Your task to perform on an android device: Show the shopping cart on newegg.com. Search for "logitech g933" on newegg.com, select the first entry, and add it to the cart. Image 0: 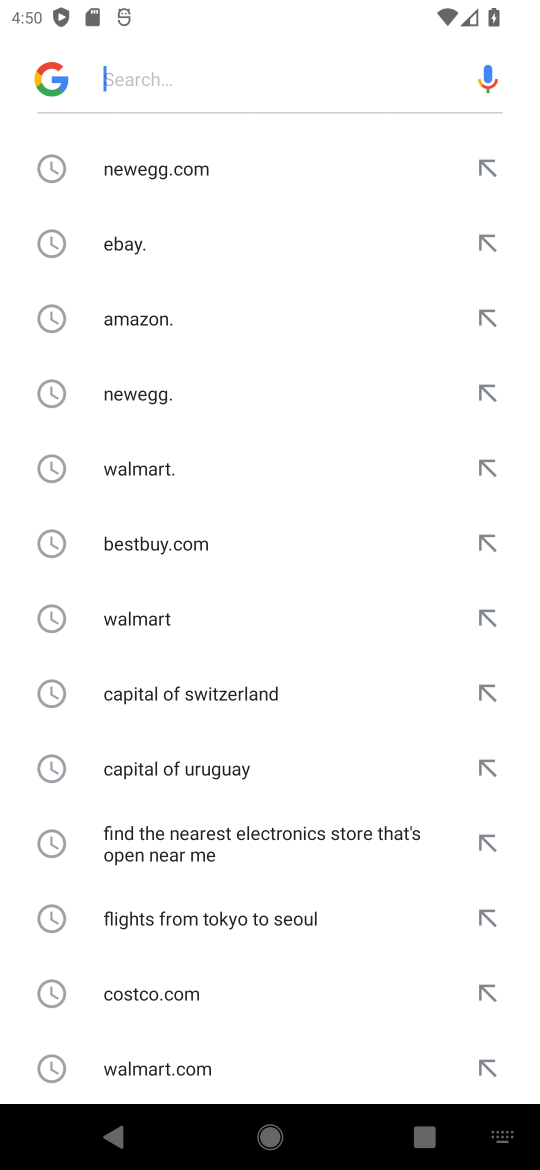
Step 0: press home button
Your task to perform on an android device: Show the shopping cart on newegg.com. Search for "logitech g933" on newegg.com, select the first entry, and add it to the cart. Image 1: 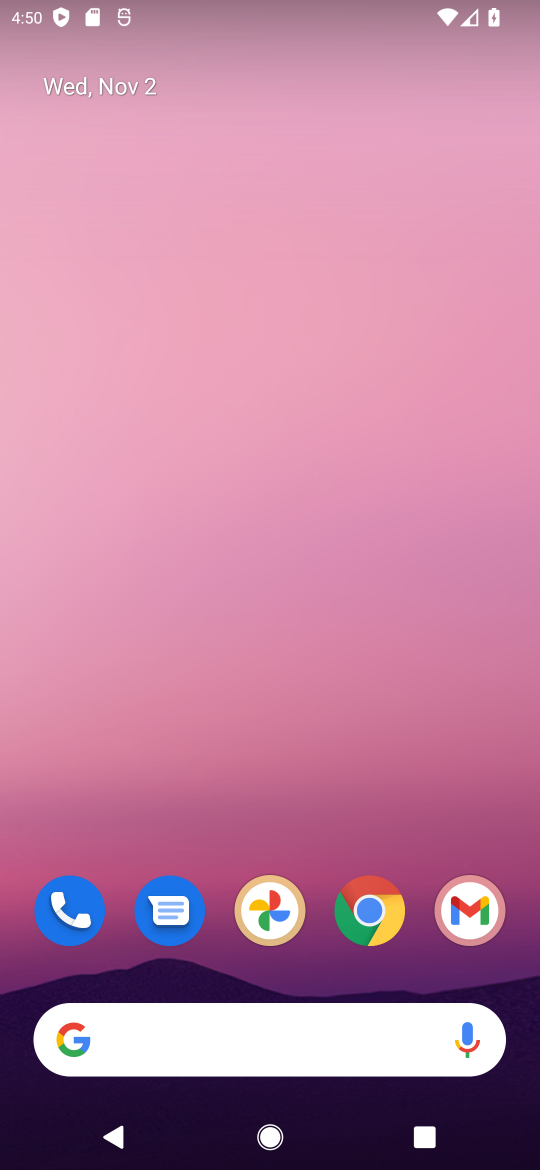
Step 1: click (371, 917)
Your task to perform on an android device: Show the shopping cart on newegg.com. Search for "logitech g933" on newegg.com, select the first entry, and add it to the cart. Image 2: 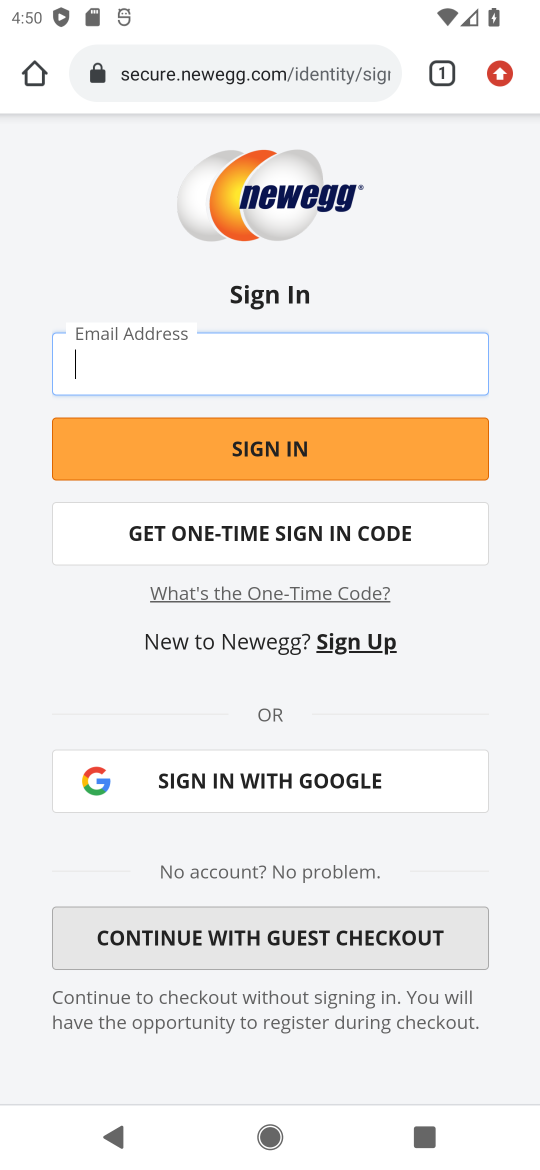
Step 2: click (201, 71)
Your task to perform on an android device: Show the shopping cart on newegg.com. Search for "logitech g933" on newegg.com, select the first entry, and add it to the cart. Image 3: 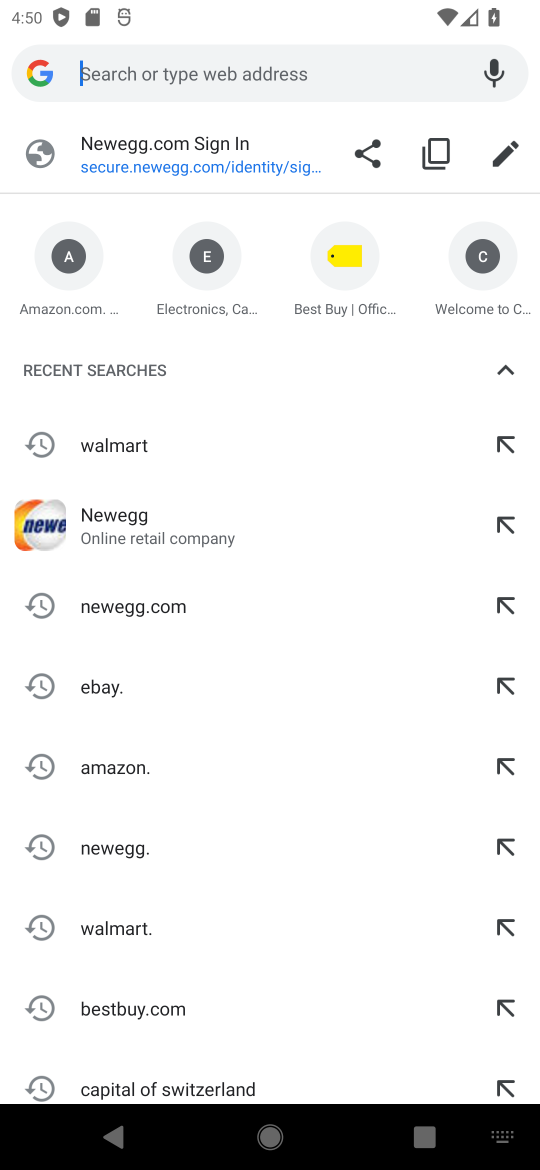
Step 3: click (95, 513)
Your task to perform on an android device: Show the shopping cart on newegg.com. Search for "logitech g933" on newegg.com, select the first entry, and add it to the cart. Image 4: 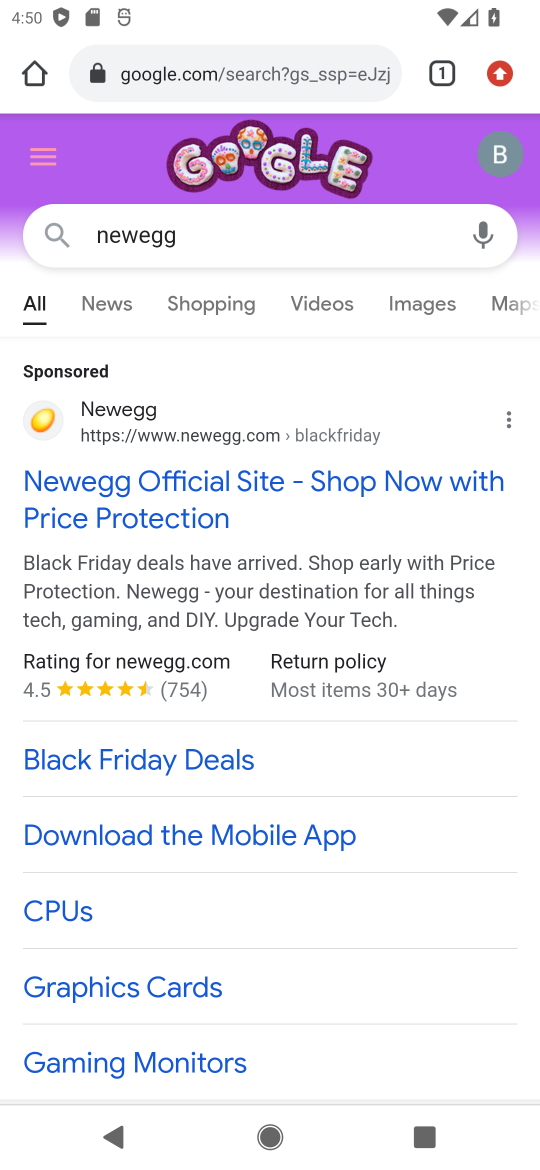
Step 4: drag from (177, 808) to (190, 349)
Your task to perform on an android device: Show the shopping cart on newegg.com. Search for "logitech g933" on newegg.com, select the first entry, and add it to the cart. Image 5: 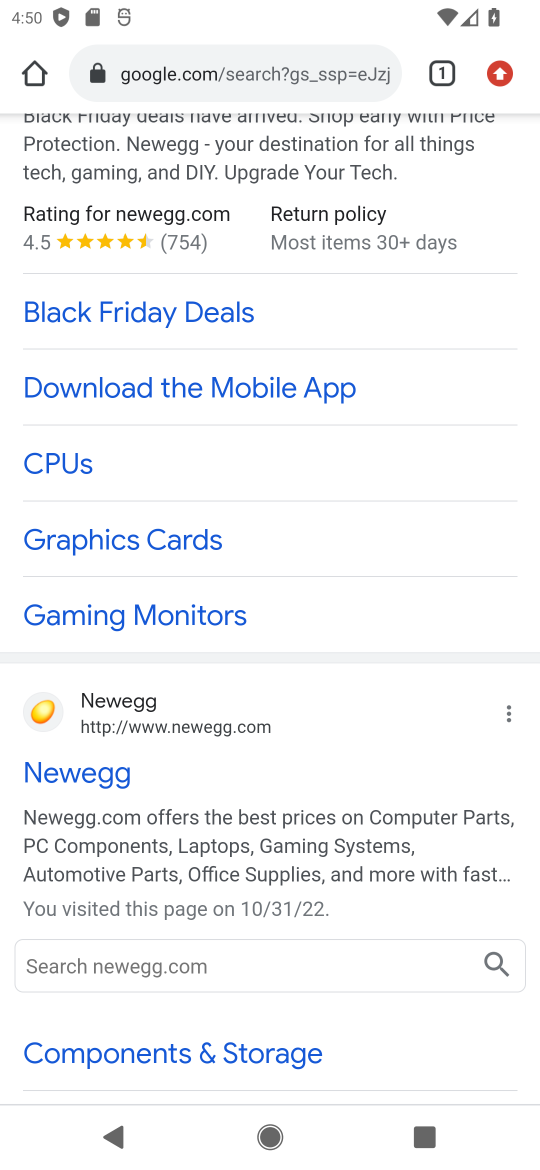
Step 5: click (65, 801)
Your task to perform on an android device: Show the shopping cart on newegg.com. Search for "logitech g933" on newegg.com, select the first entry, and add it to the cart. Image 6: 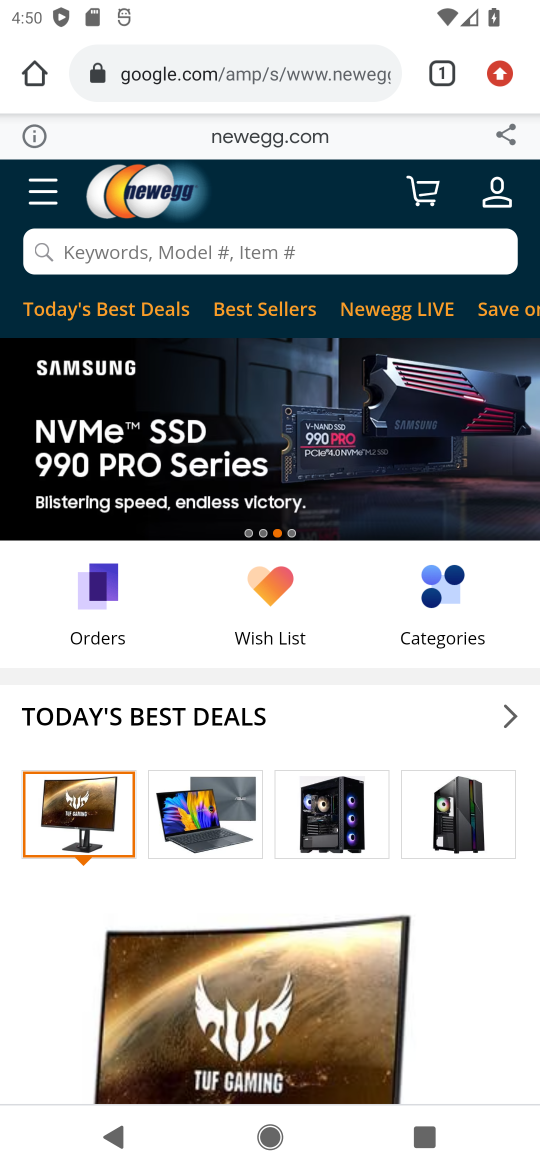
Step 6: click (199, 261)
Your task to perform on an android device: Show the shopping cart on newegg.com. Search for "logitech g933" on newegg.com, select the first entry, and add it to the cart. Image 7: 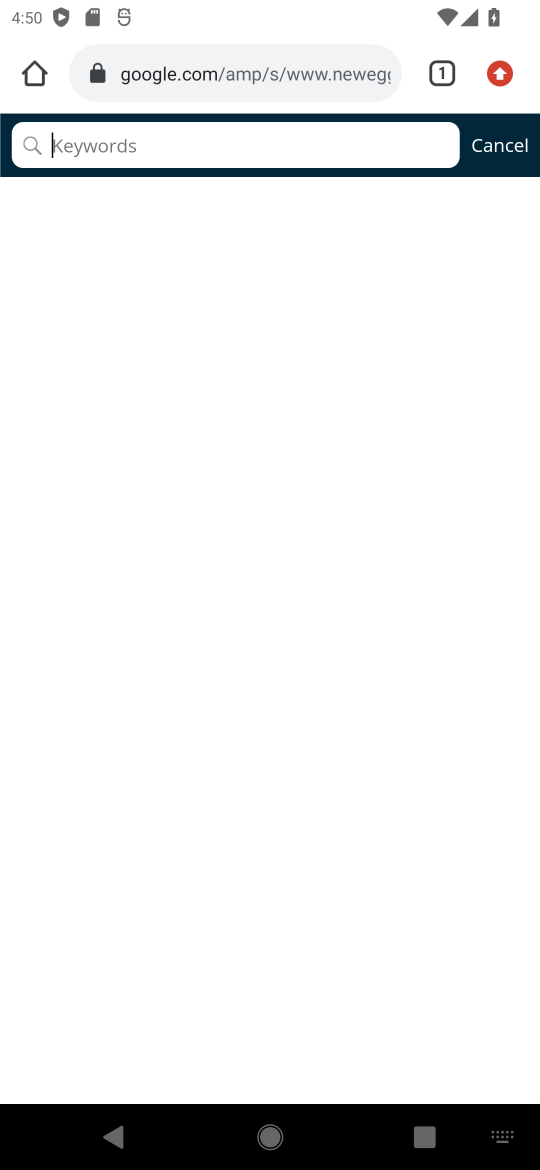
Step 7: type "logitech g933"
Your task to perform on an android device: Show the shopping cart on newegg.com. Search for "logitech g933" on newegg.com, select the first entry, and add it to the cart. Image 8: 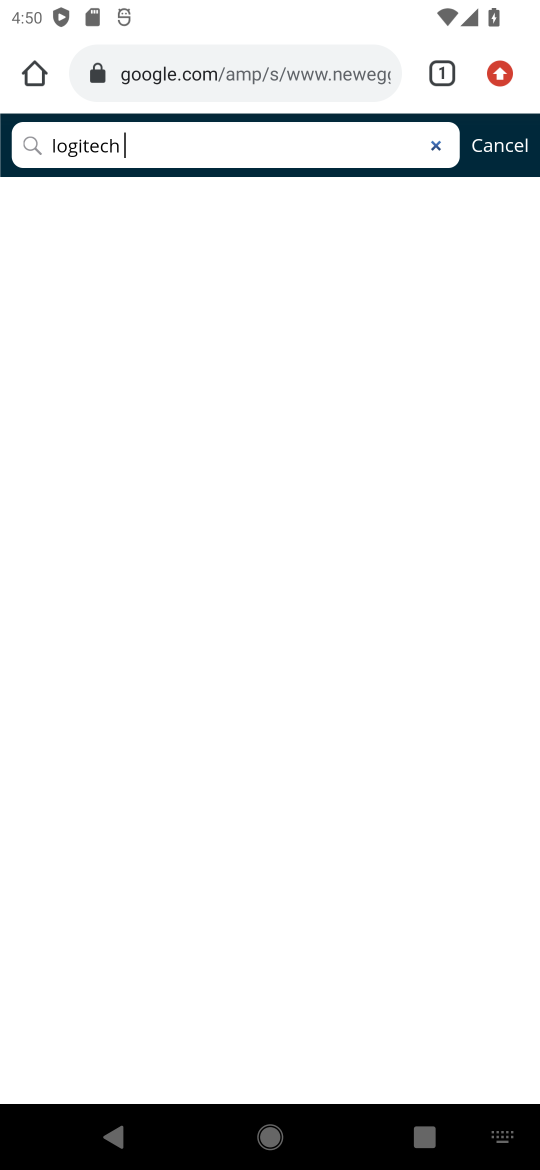
Step 8: type ""
Your task to perform on an android device: Show the shopping cart on newegg.com. Search for "logitech g933" on newegg.com, select the first entry, and add it to the cart. Image 9: 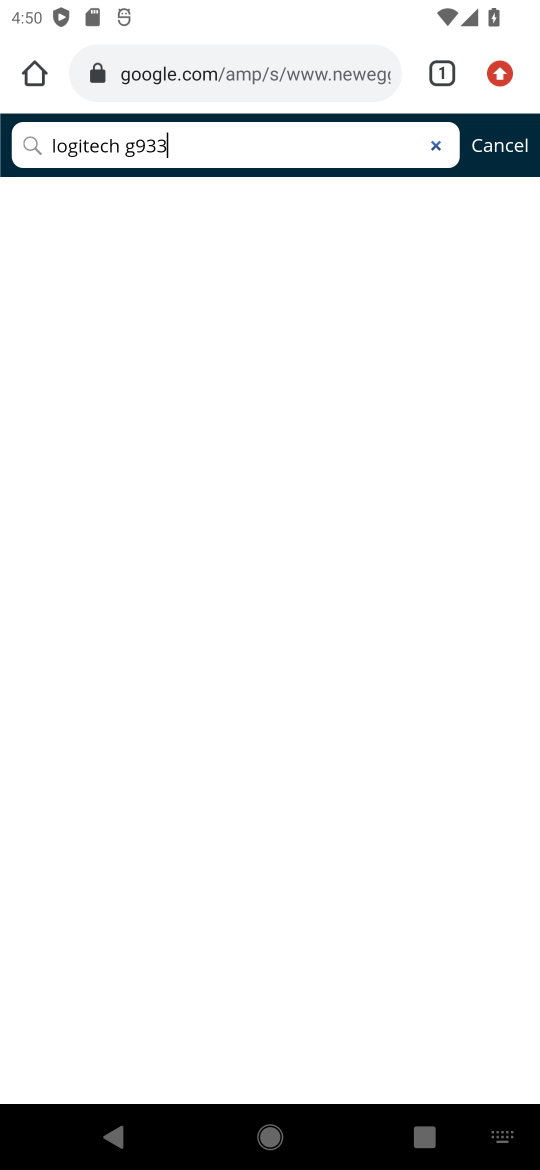
Step 9: press enter
Your task to perform on an android device: Show the shopping cart on newegg.com. Search for "logitech g933" on newegg.com, select the first entry, and add it to the cart. Image 10: 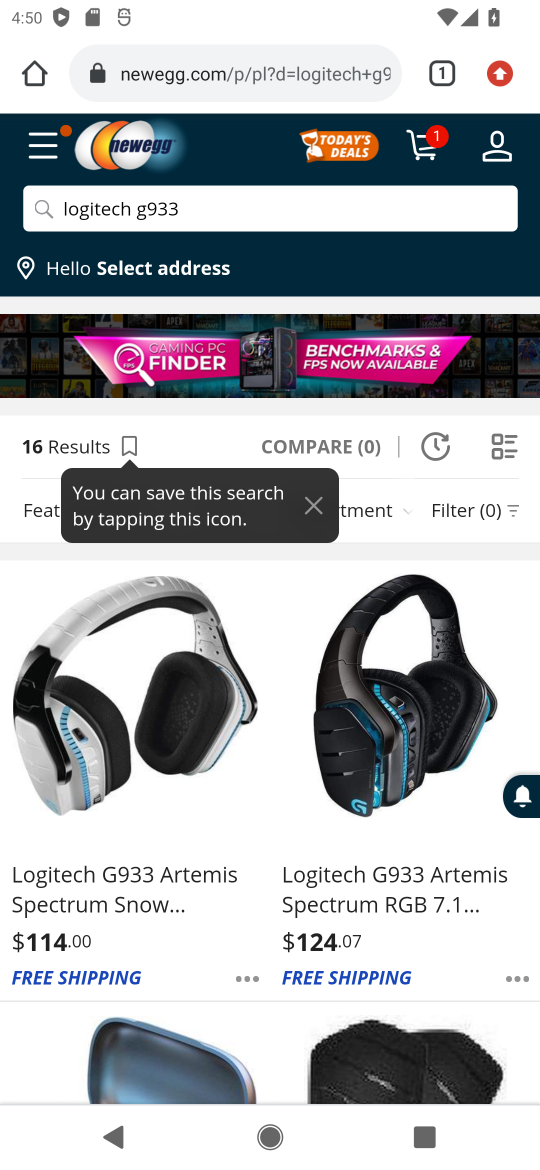
Step 10: click (55, 865)
Your task to perform on an android device: Show the shopping cart on newegg.com. Search for "logitech g933" on newegg.com, select the first entry, and add it to the cart. Image 11: 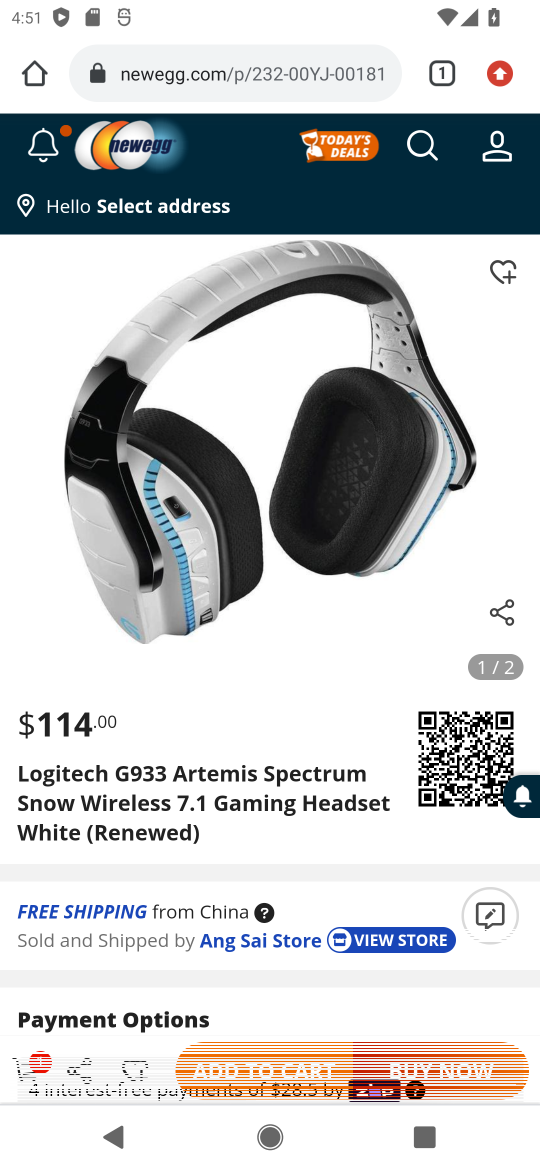
Step 11: click (226, 1075)
Your task to perform on an android device: Show the shopping cart on newegg.com. Search for "logitech g933" on newegg.com, select the first entry, and add it to the cart. Image 12: 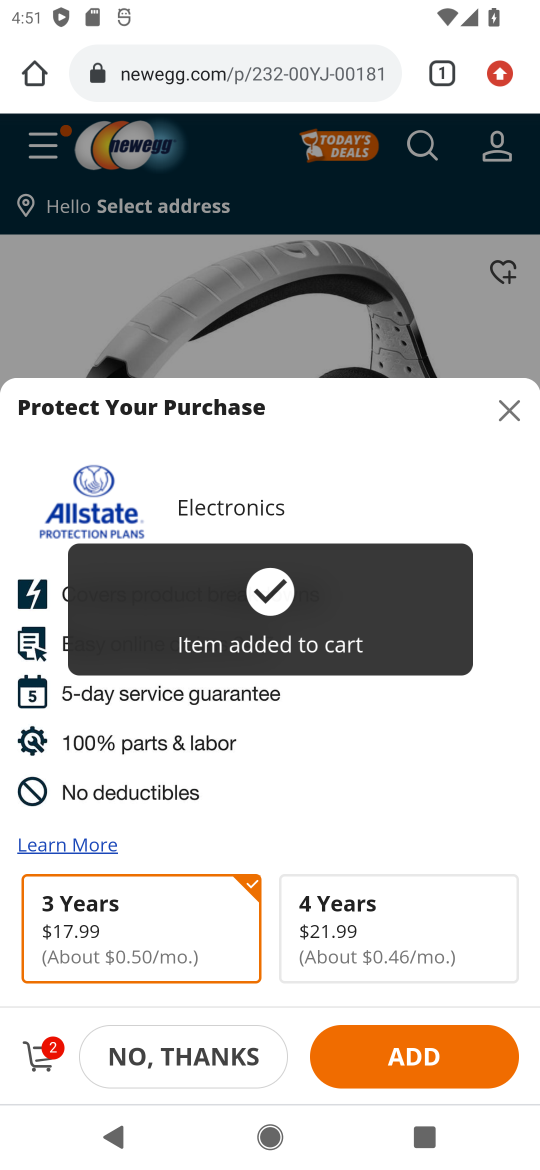
Step 12: click (235, 1072)
Your task to perform on an android device: Show the shopping cart on newegg.com. Search for "logitech g933" on newegg.com, select the first entry, and add it to the cart. Image 13: 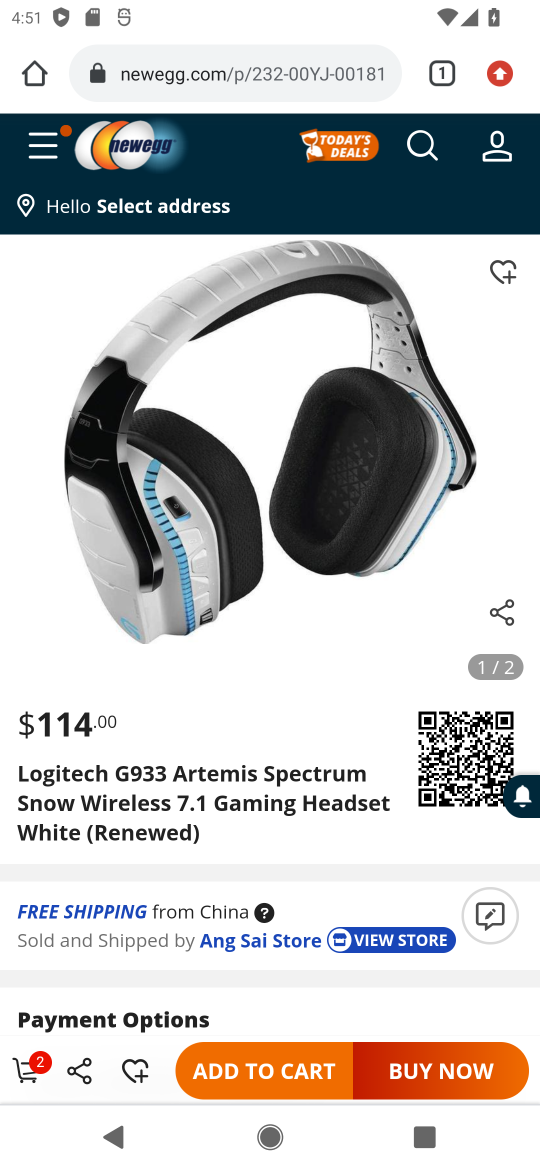
Step 13: click (231, 1063)
Your task to perform on an android device: Show the shopping cart on newegg.com. Search for "logitech g933" on newegg.com, select the first entry, and add it to the cart. Image 14: 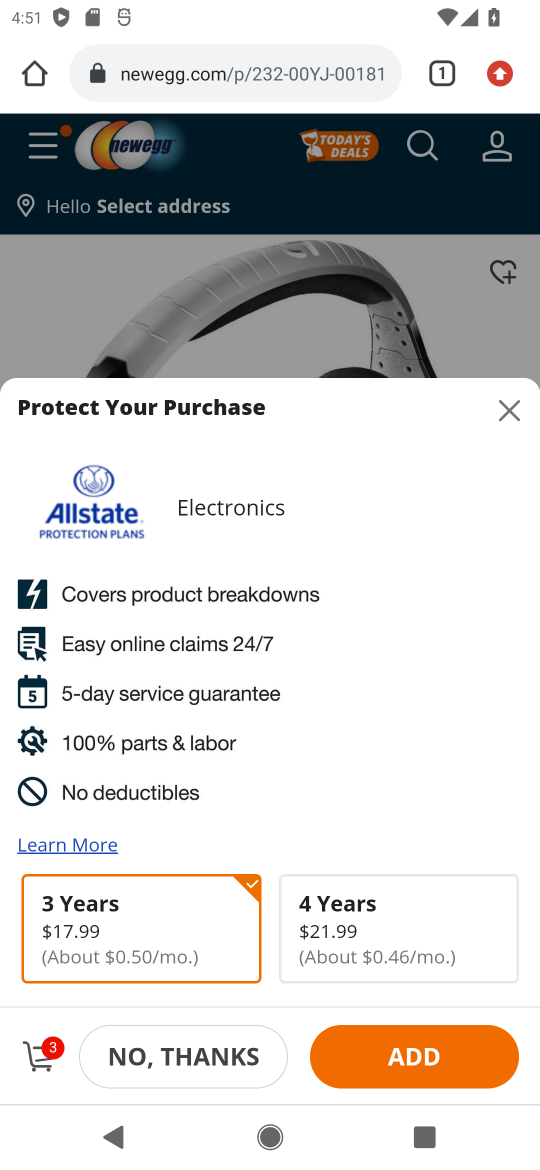
Step 14: click (347, 1039)
Your task to perform on an android device: Show the shopping cart on newegg.com. Search for "logitech g933" on newegg.com, select the first entry, and add it to the cart. Image 15: 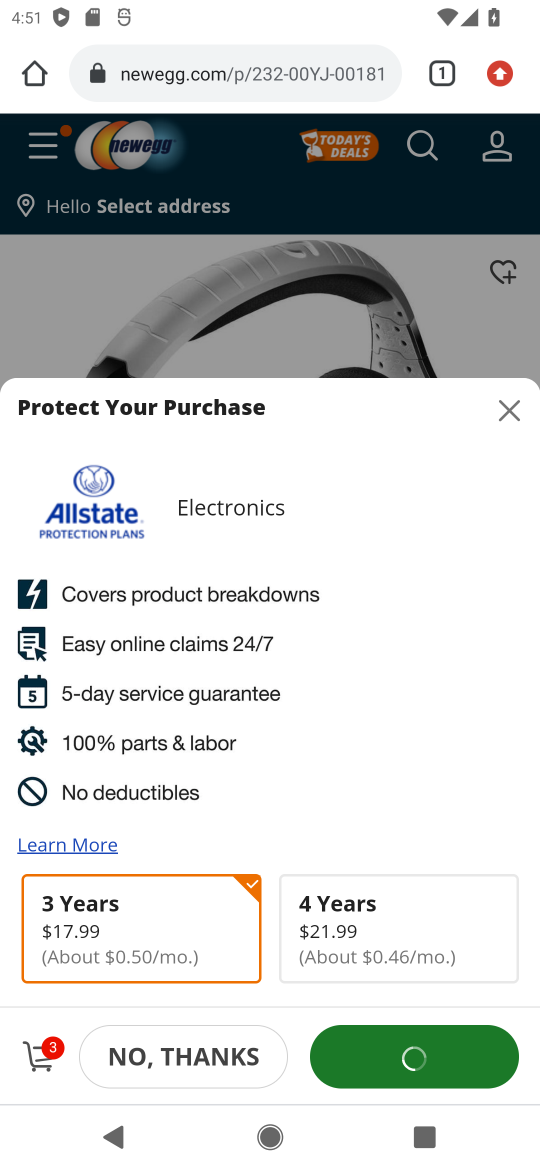
Step 15: task complete